Your task to perform on an android device: What's the weather today? Image 0: 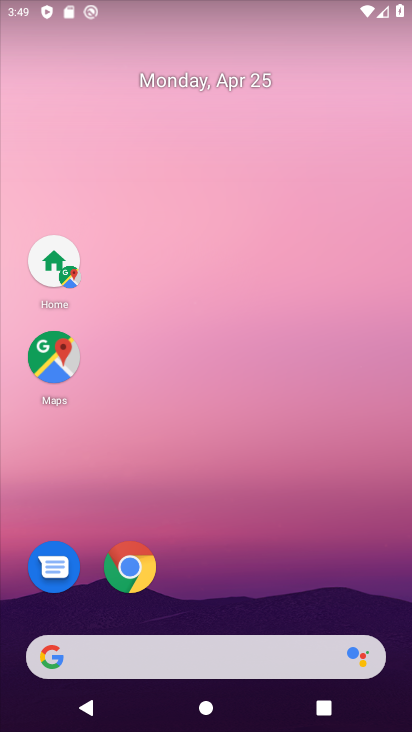
Step 0: drag from (96, 731) to (301, 540)
Your task to perform on an android device: What's the weather today? Image 1: 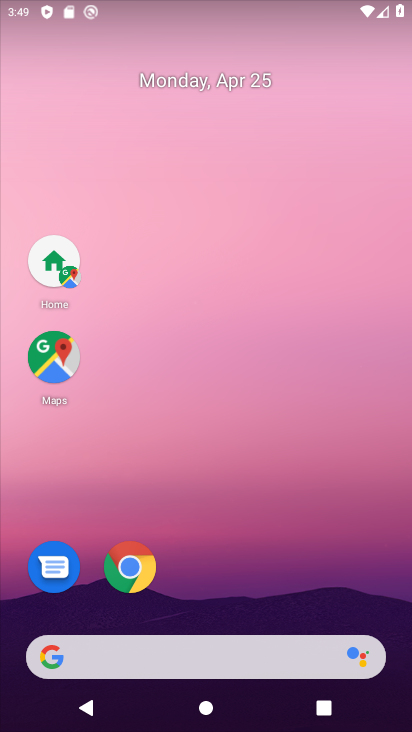
Step 1: click (127, 551)
Your task to perform on an android device: What's the weather today? Image 2: 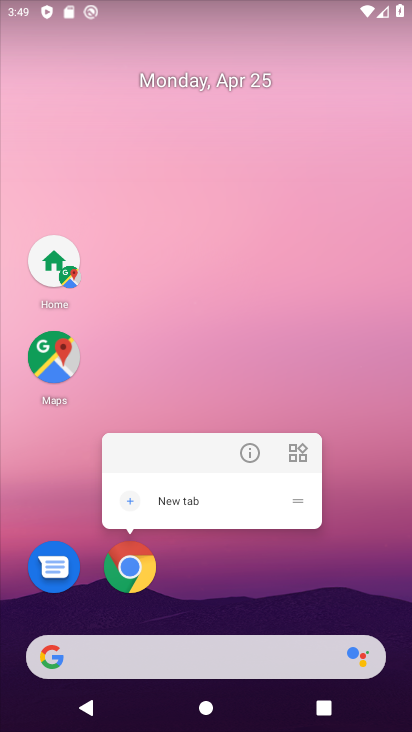
Step 2: click (127, 551)
Your task to perform on an android device: What's the weather today? Image 3: 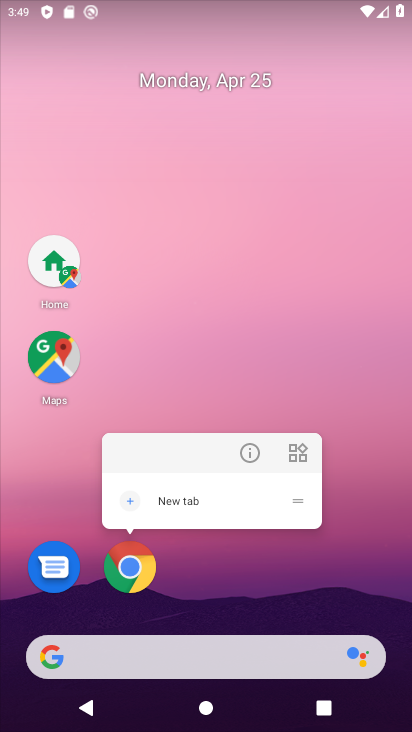
Step 3: click (127, 549)
Your task to perform on an android device: What's the weather today? Image 4: 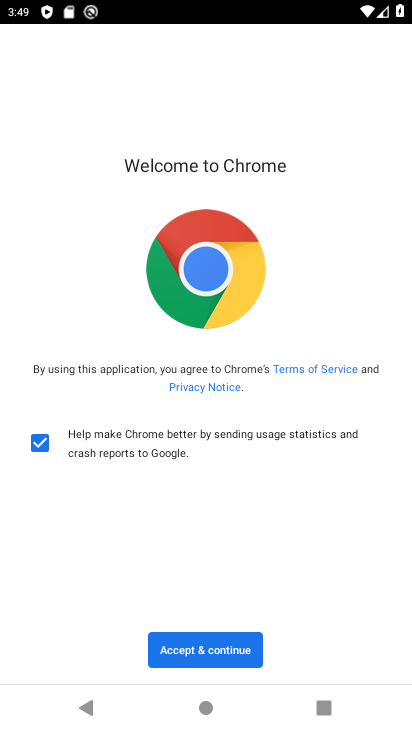
Step 4: click (194, 634)
Your task to perform on an android device: What's the weather today? Image 5: 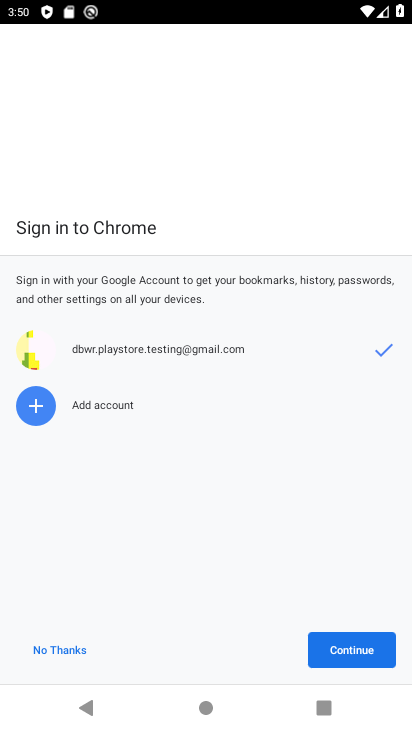
Step 5: click (365, 632)
Your task to perform on an android device: What's the weather today? Image 6: 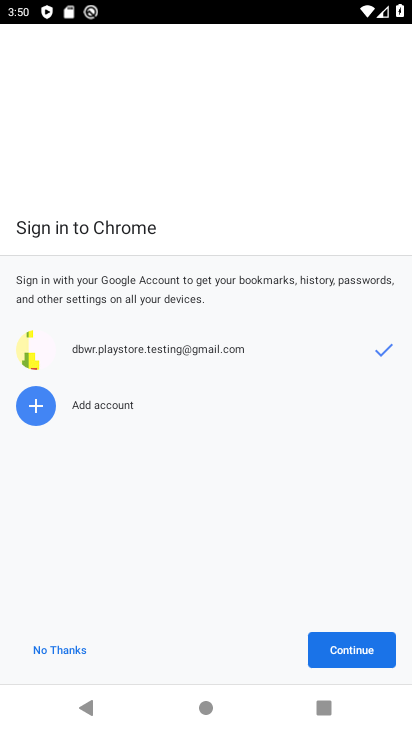
Step 6: click (348, 643)
Your task to perform on an android device: What's the weather today? Image 7: 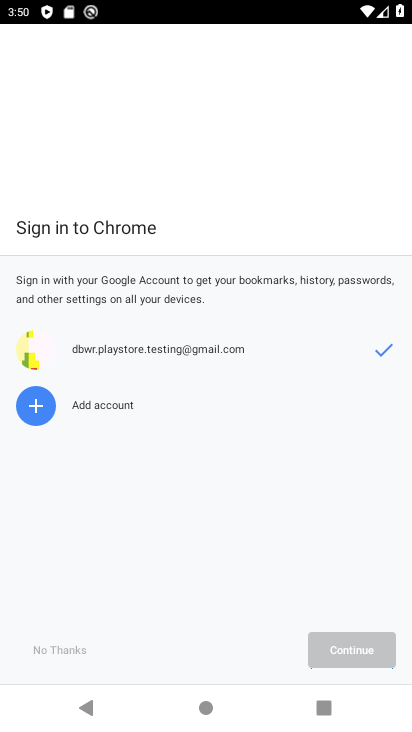
Step 7: click (348, 643)
Your task to perform on an android device: What's the weather today? Image 8: 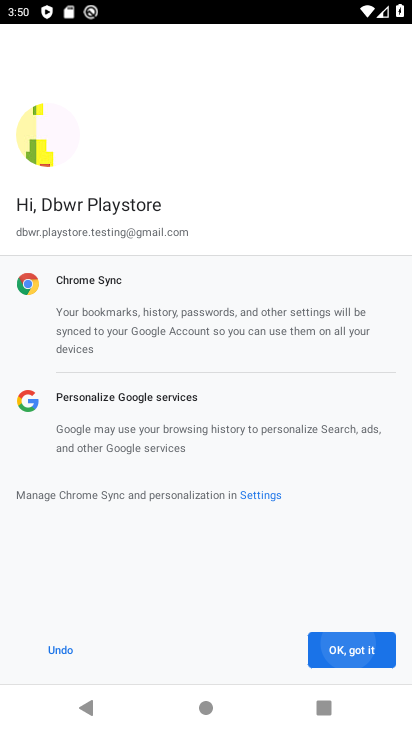
Step 8: click (348, 643)
Your task to perform on an android device: What's the weather today? Image 9: 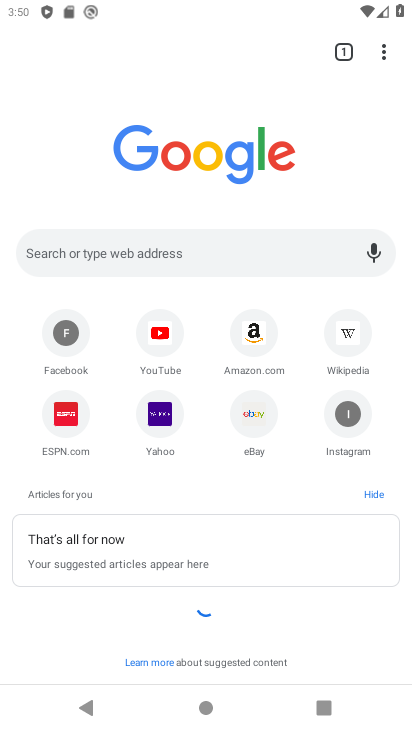
Step 9: click (159, 247)
Your task to perform on an android device: What's the weather today? Image 10: 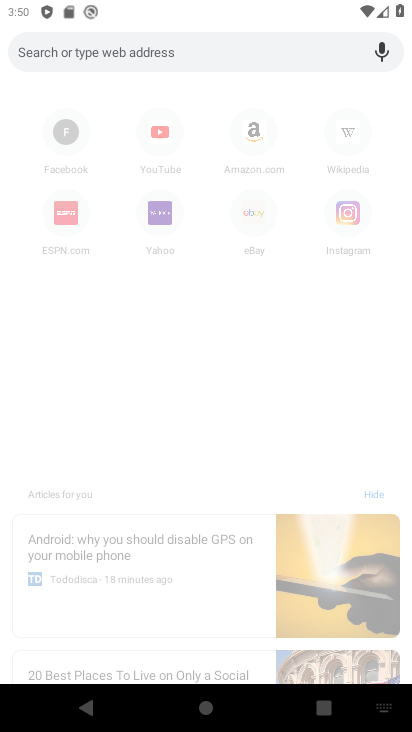
Step 10: type "What's the weather today?"
Your task to perform on an android device: What's the weather today? Image 11: 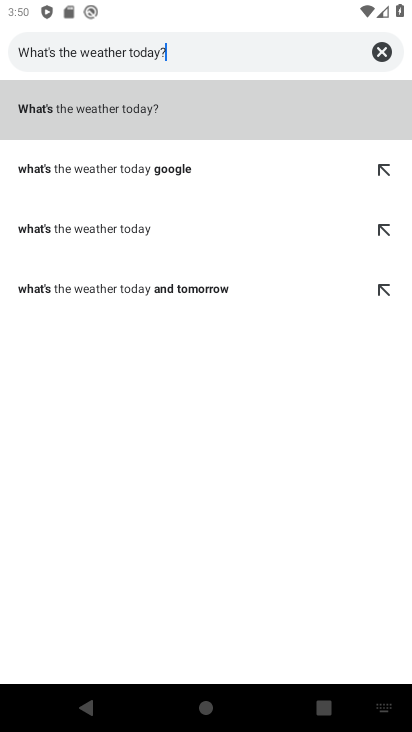
Step 11: type ""
Your task to perform on an android device: What's the weather today? Image 12: 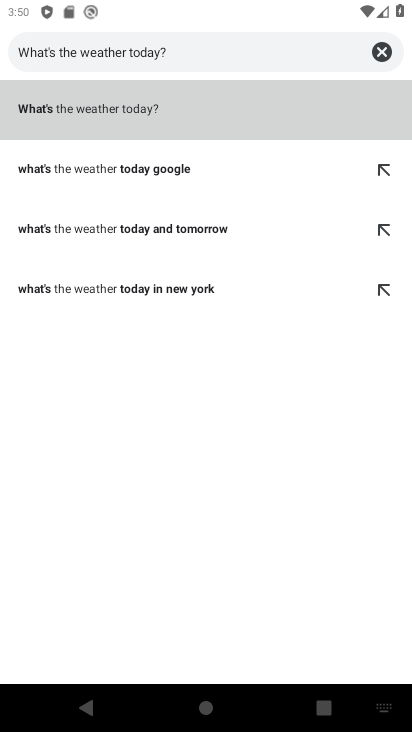
Step 12: click (291, 94)
Your task to perform on an android device: What's the weather today? Image 13: 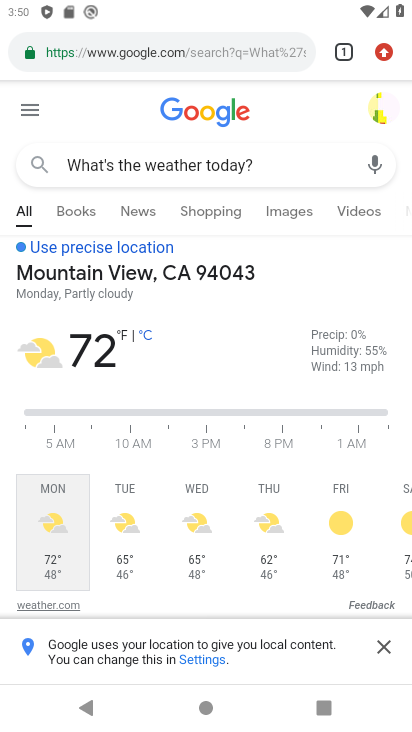
Step 13: task complete